Your task to perform on an android device: star an email in the gmail app Image 0: 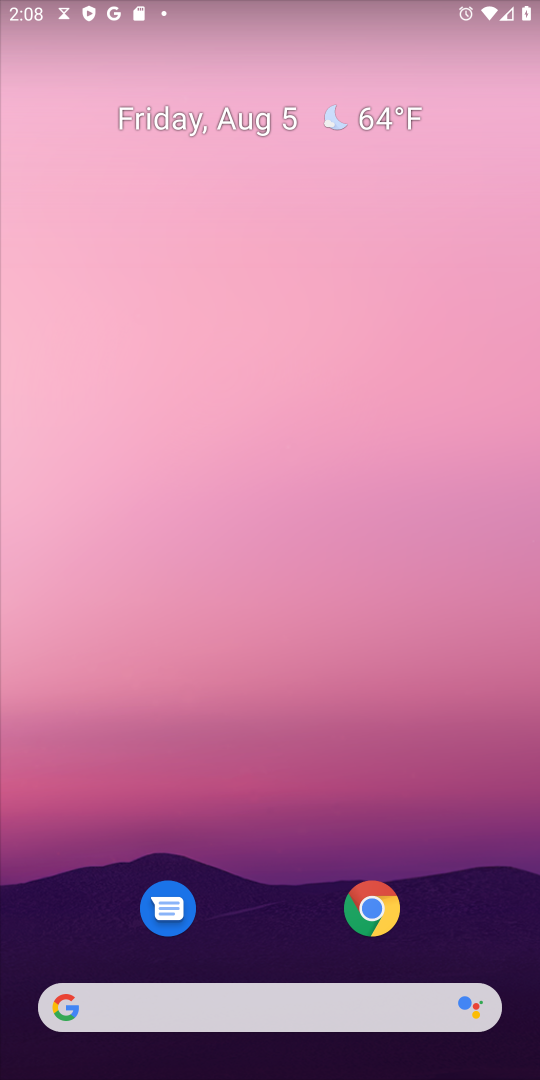
Step 0: press home button
Your task to perform on an android device: star an email in the gmail app Image 1: 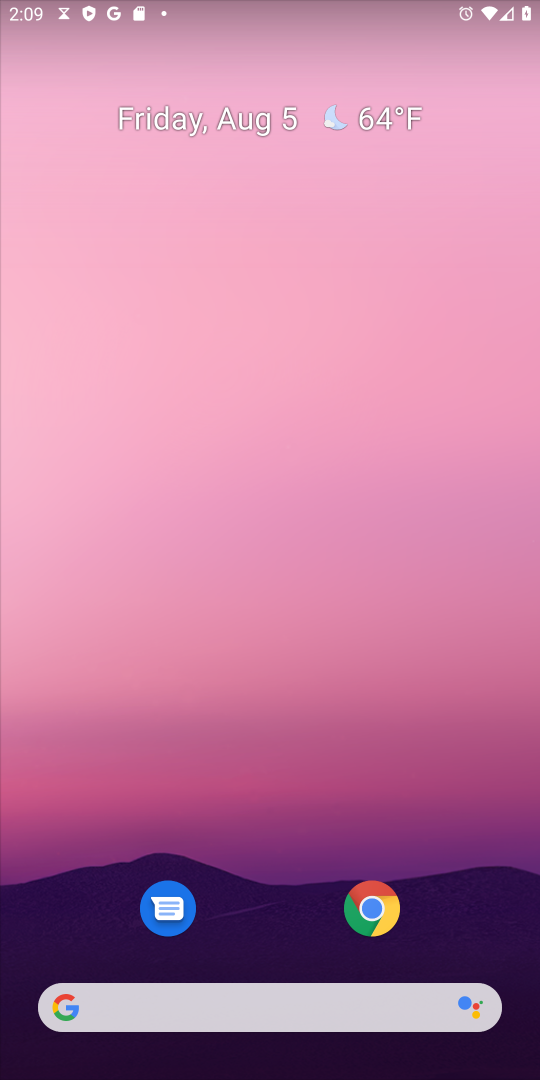
Step 1: drag from (252, 811) to (295, 316)
Your task to perform on an android device: star an email in the gmail app Image 2: 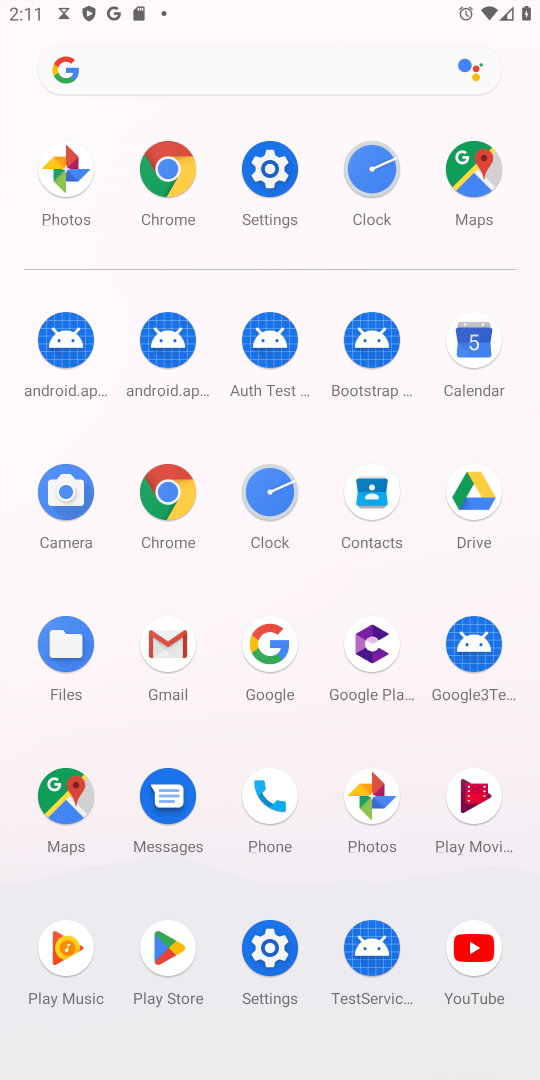
Step 2: click (183, 670)
Your task to perform on an android device: star an email in the gmail app Image 3: 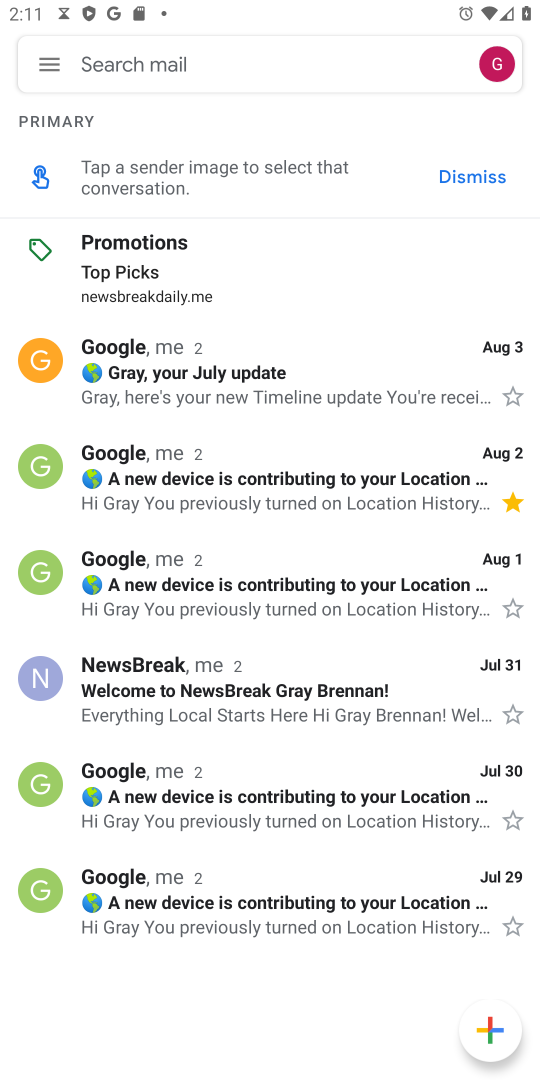
Step 3: click (514, 607)
Your task to perform on an android device: star an email in the gmail app Image 4: 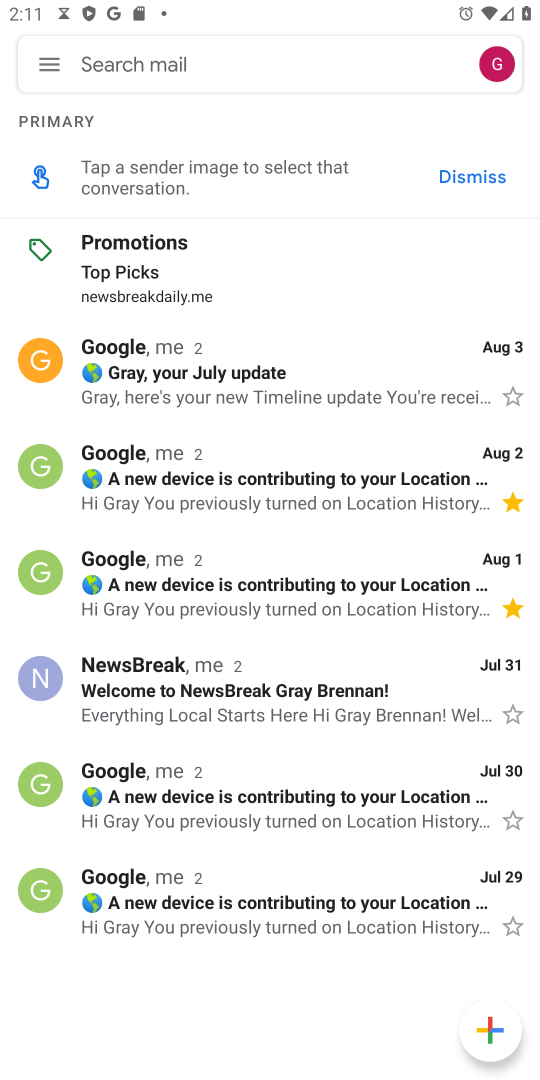
Step 4: task complete